Your task to perform on an android device: search for starred emails in the gmail app Image 0: 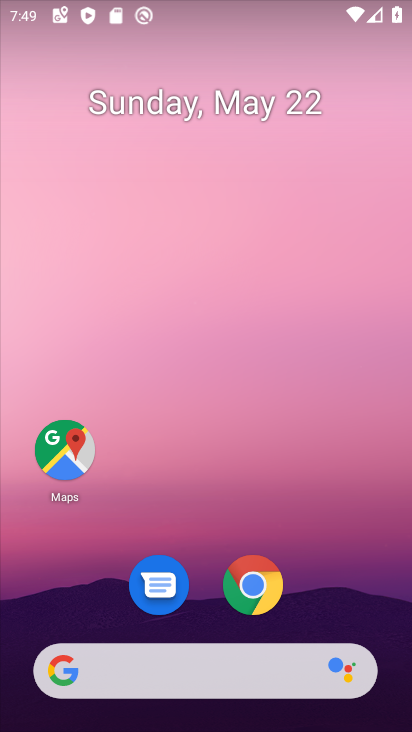
Step 0: drag from (243, 494) to (277, 22)
Your task to perform on an android device: search for starred emails in the gmail app Image 1: 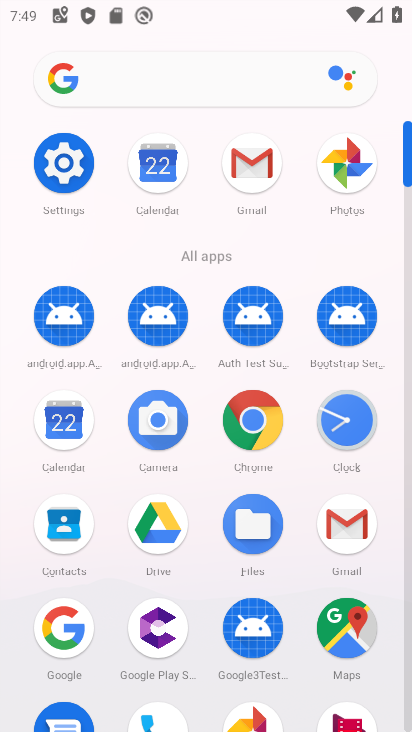
Step 1: click (255, 160)
Your task to perform on an android device: search for starred emails in the gmail app Image 2: 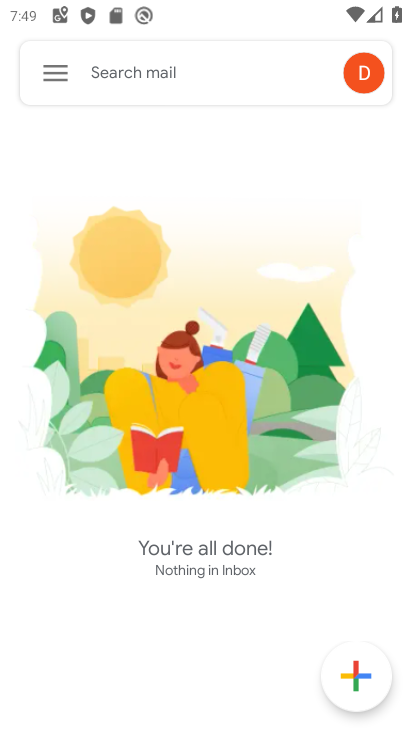
Step 2: click (53, 73)
Your task to perform on an android device: search for starred emails in the gmail app Image 3: 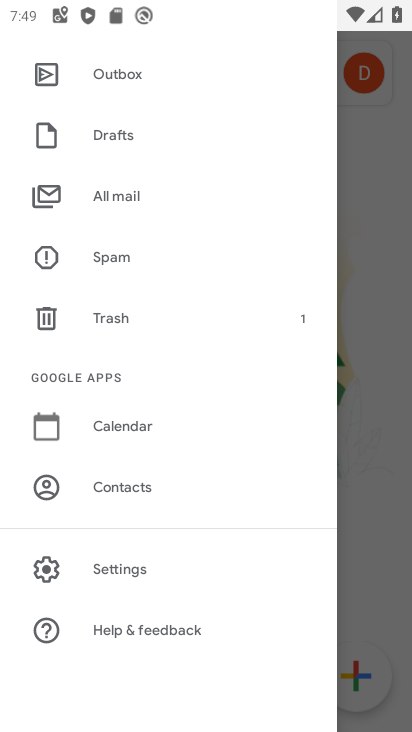
Step 3: drag from (153, 158) to (183, 630)
Your task to perform on an android device: search for starred emails in the gmail app Image 4: 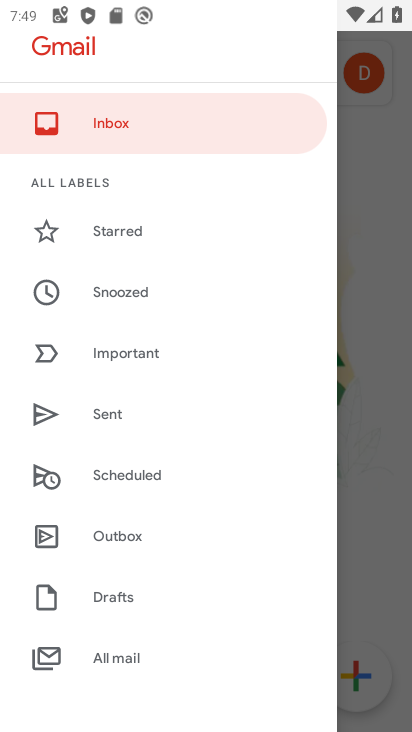
Step 4: click (122, 226)
Your task to perform on an android device: search for starred emails in the gmail app Image 5: 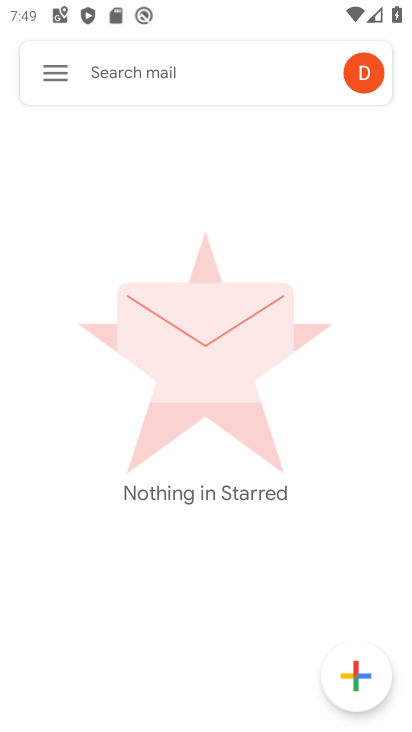
Step 5: task complete